Your task to perform on an android device: open a bookmark in the chrome app Image 0: 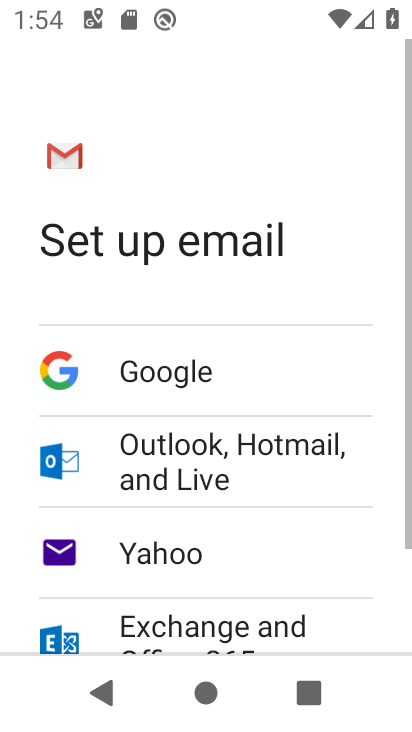
Step 0: press home button
Your task to perform on an android device: open a bookmark in the chrome app Image 1: 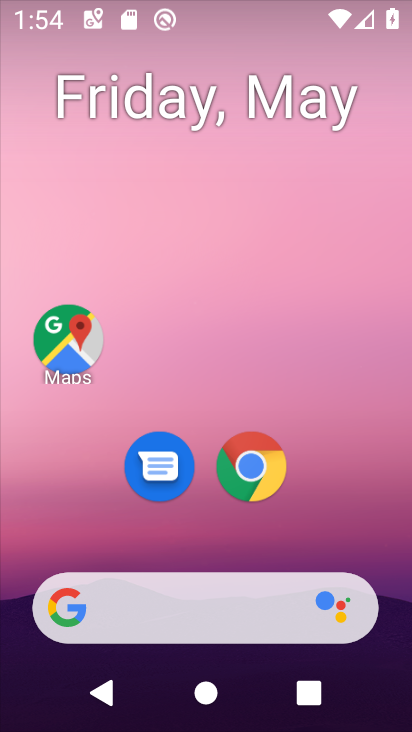
Step 1: drag from (338, 489) to (342, 0)
Your task to perform on an android device: open a bookmark in the chrome app Image 2: 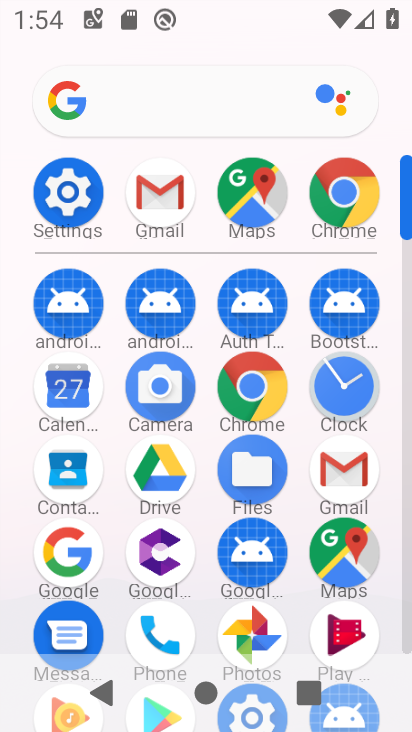
Step 2: click (342, 205)
Your task to perform on an android device: open a bookmark in the chrome app Image 3: 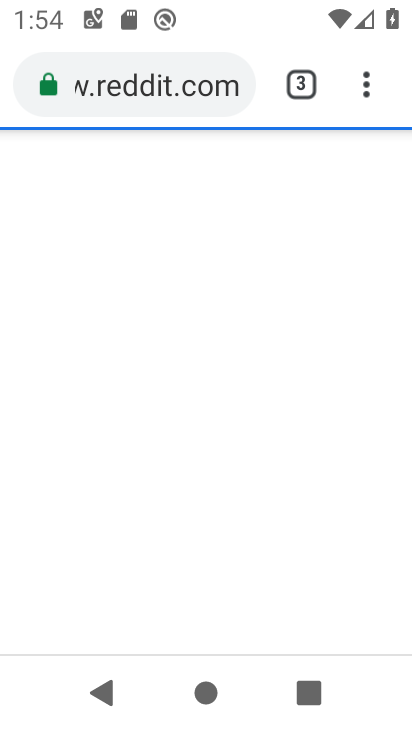
Step 3: task complete